Your task to perform on an android device: open sync settings in chrome Image 0: 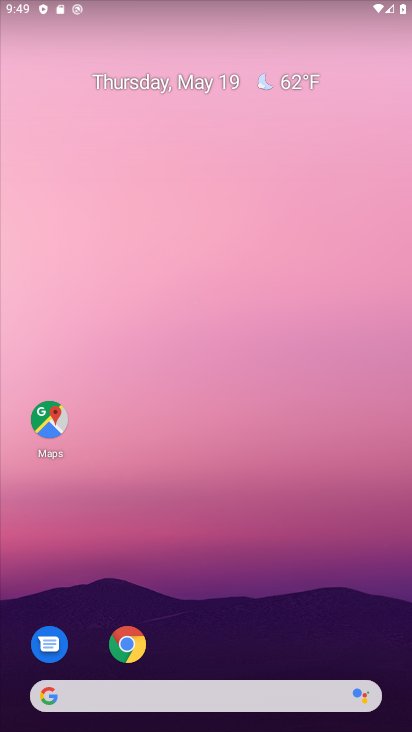
Step 0: drag from (248, 631) to (93, 4)
Your task to perform on an android device: open sync settings in chrome Image 1: 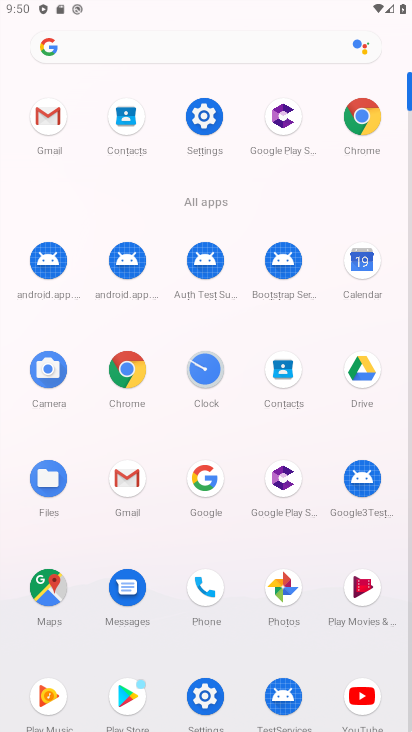
Step 1: click (360, 113)
Your task to perform on an android device: open sync settings in chrome Image 2: 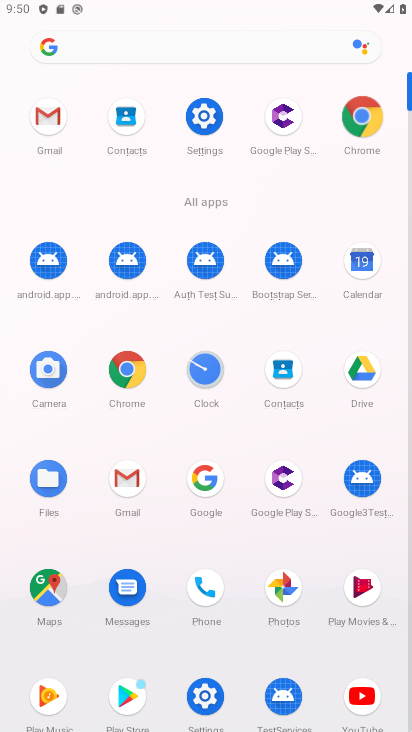
Step 2: click (360, 113)
Your task to perform on an android device: open sync settings in chrome Image 3: 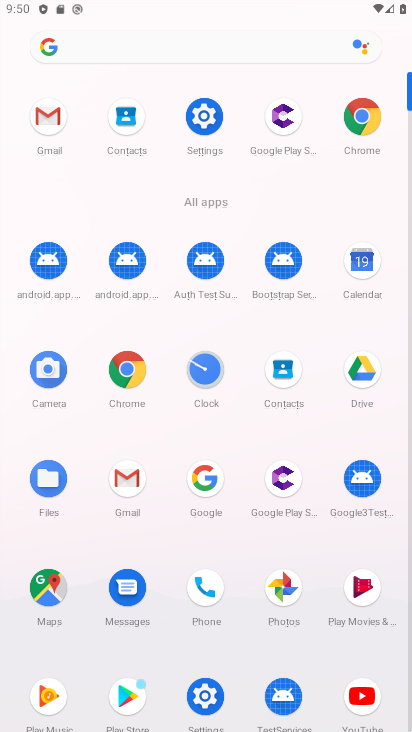
Step 3: click (360, 113)
Your task to perform on an android device: open sync settings in chrome Image 4: 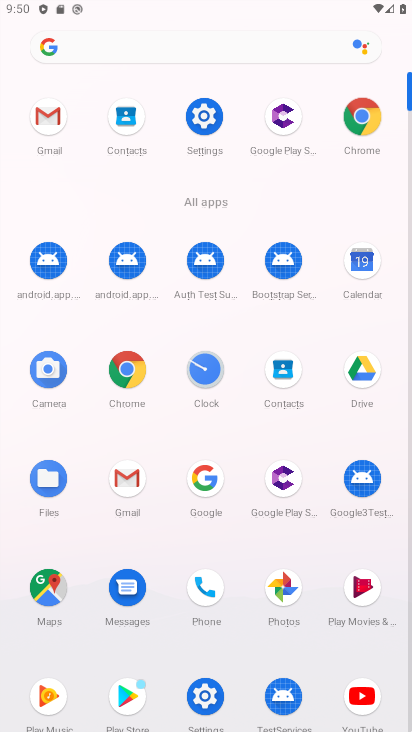
Step 4: click (360, 113)
Your task to perform on an android device: open sync settings in chrome Image 5: 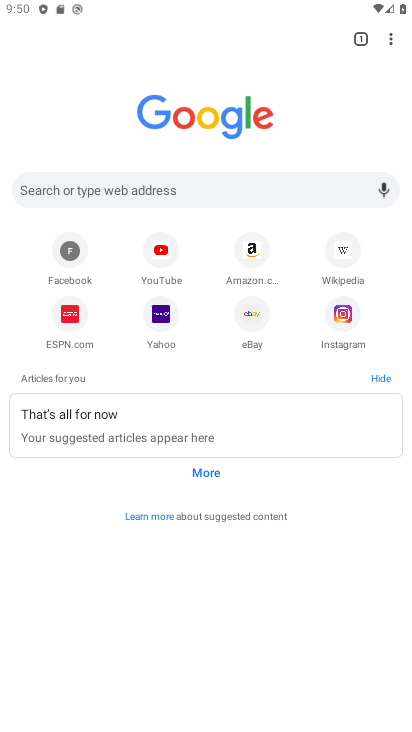
Step 5: drag from (390, 36) to (251, 374)
Your task to perform on an android device: open sync settings in chrome Image 6: 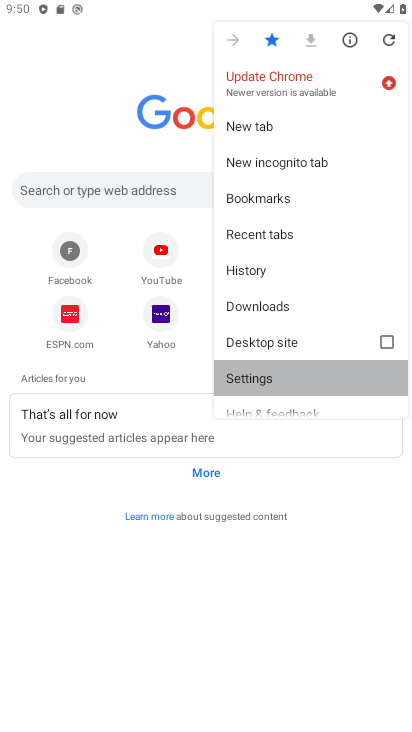
Step 6: click (251, 374)
Your task to perform on an android device: open sync settings in chrome Image 7: 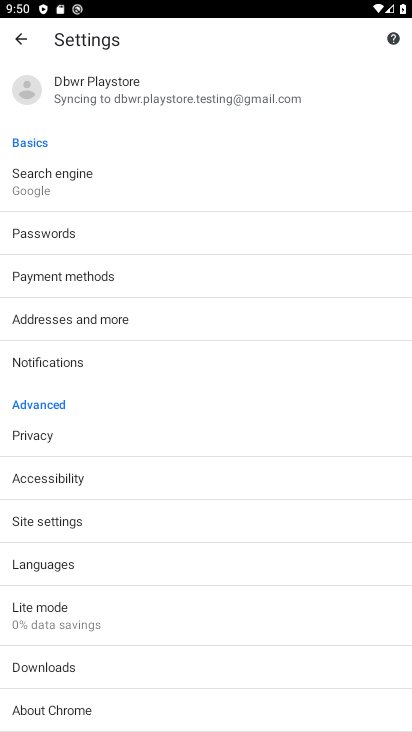
Step 7: click (34, 511)
Your task to perform on an android device: open sync settings in chrome Image 8: 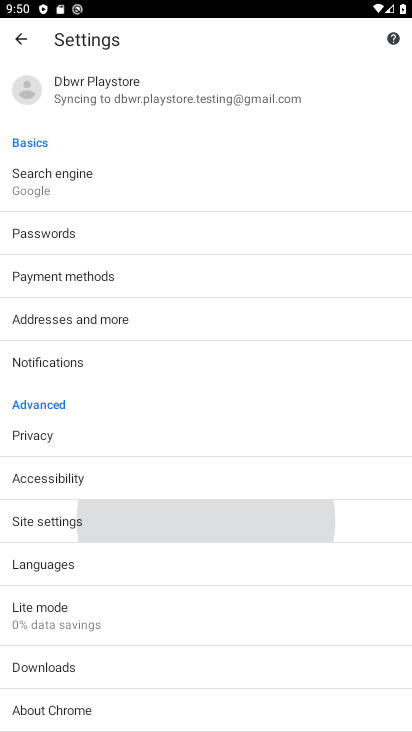
Step 8: click (34, 512)
Your task to perform on an android device: open sync settings in chrome Image 9: 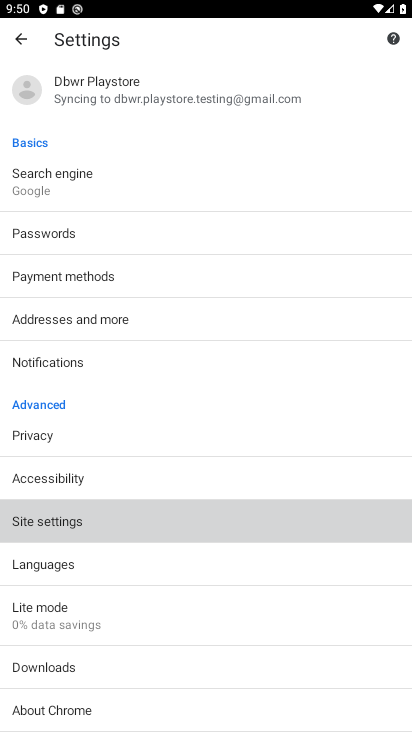
Step 9: click (34, 512)
Your task to perform on an android device: open sync settings in chrome Image 10: 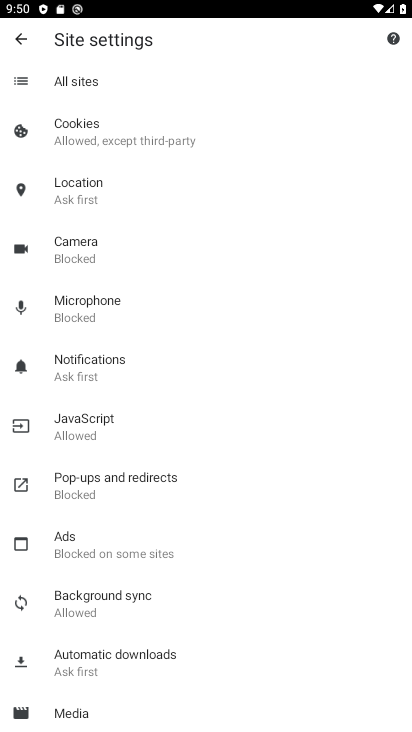
Step 10: click (83, 607)
Your task to perform on an android device: open sync settings in chrome Image 11: 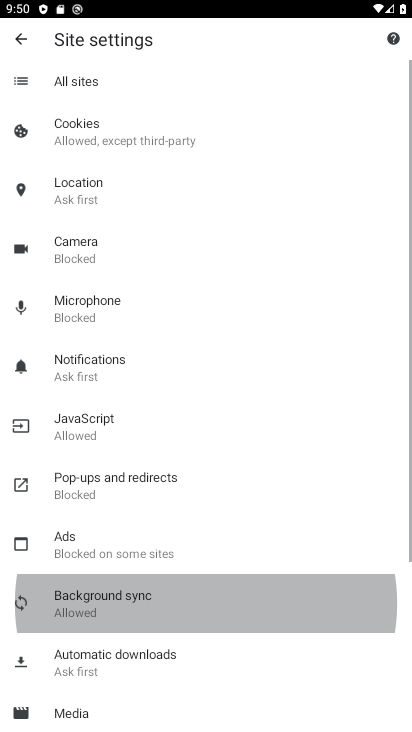
Step 11: click (83, 607)
Your task to perform on an android device: open sync settings in chrome Image 12: 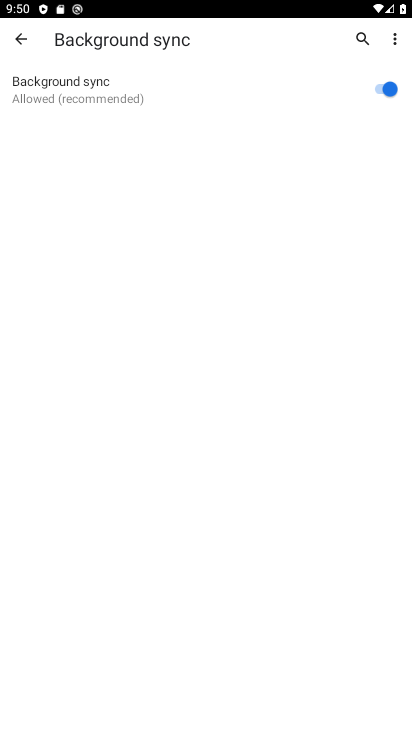
Step 12: task complete